Your task to perform on an android device: How much does a 2 bedroom apartment rent for in Boston? Image 0: 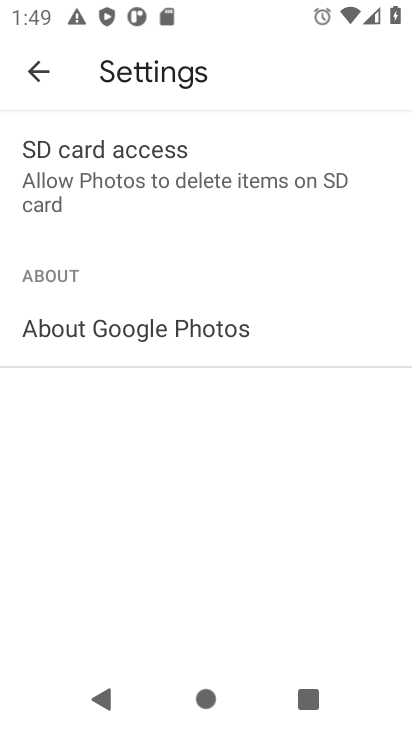
Step 0: press home button
Your task to perform on an android device: How much does a 2 bedroom apartment rent for in Boston? Image 1: 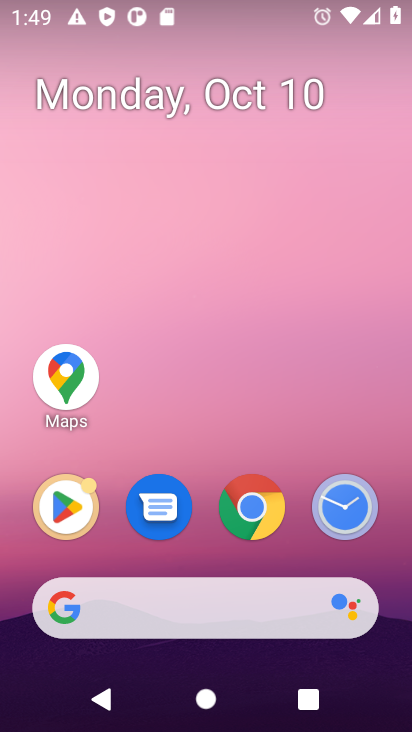
Step 1: click (216, 607)
Your task to perform on an android device: How much does a 2 bedroom apartment rent for in Boston? Image 2: 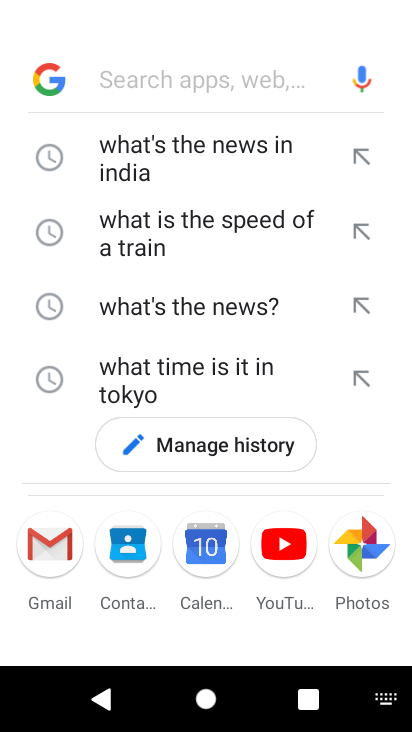
Step 2: type "2 bedroom apartment rent for in Boston"
Your task to perform on an android device: How much does a 2 bedroom apartment rent for in Boston? Image 3: 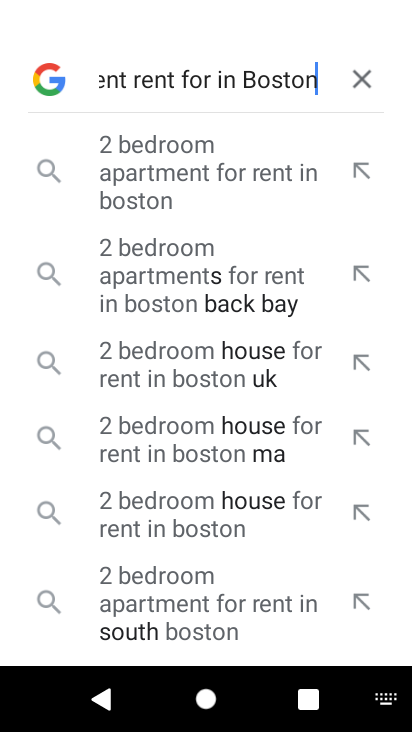
Step 3: press enter
Your task to perform on an android device: How much does a 2 bedroom apartment rent for in Boston? Image 4: 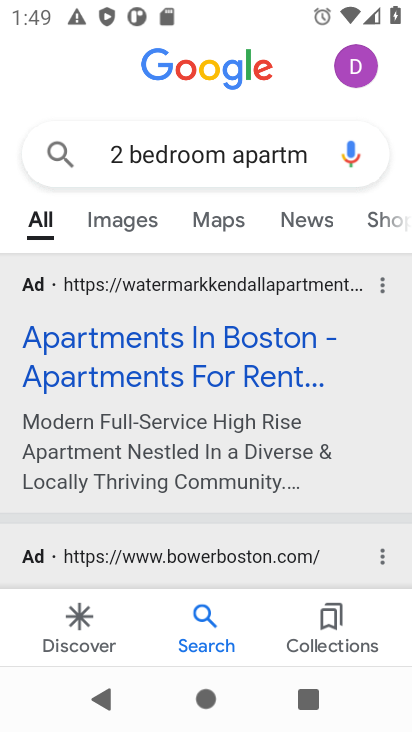
Step 4: click (225, 370)
Your task to perform on an android device: How much does a 2 bedroom apartment rent for in Boston? Image 5: 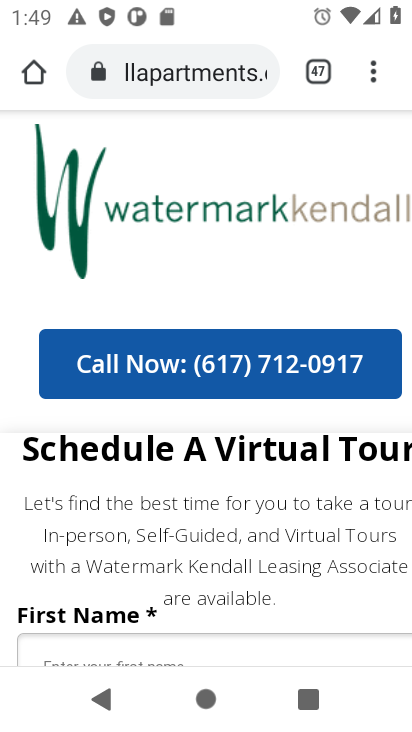
Step 5: task complete